Your task to perform on an android device: Go to CNN.com Image 0: 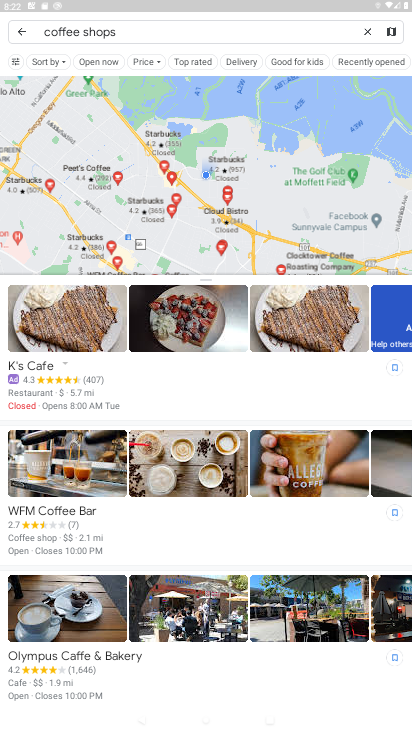
Step 0: press home button
Your task to perform on an android device: Go to CNN.com Image 1: 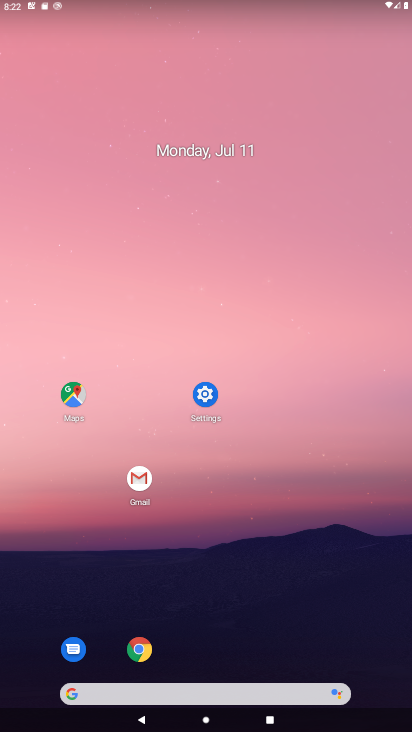
Step 1: click (129, 645)
Your task to perform on an android device: Go to CNN.com Image 2: 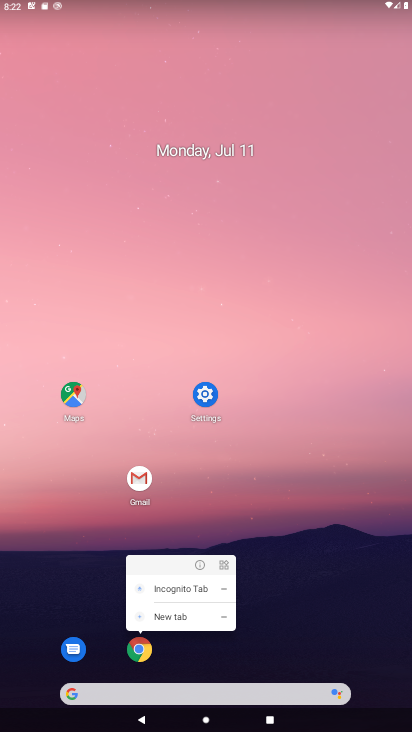
Step 2: click (142, 650)
Your task to perform on an android device: Go to CNN.com Image 3: 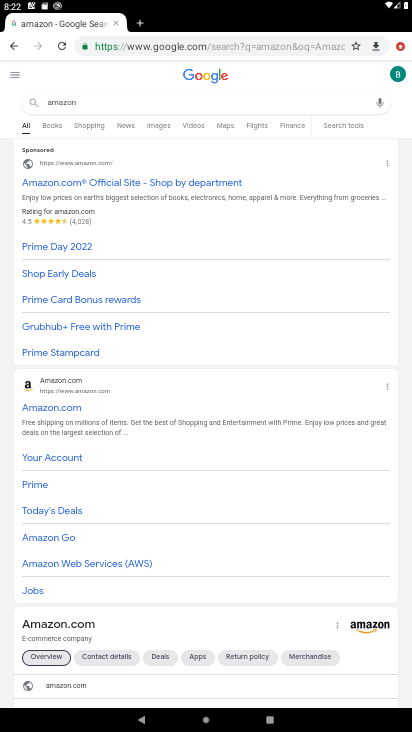
Step 3: click (346, 44)
Your task to perform on an android device: Go to CNN.com Image 4: 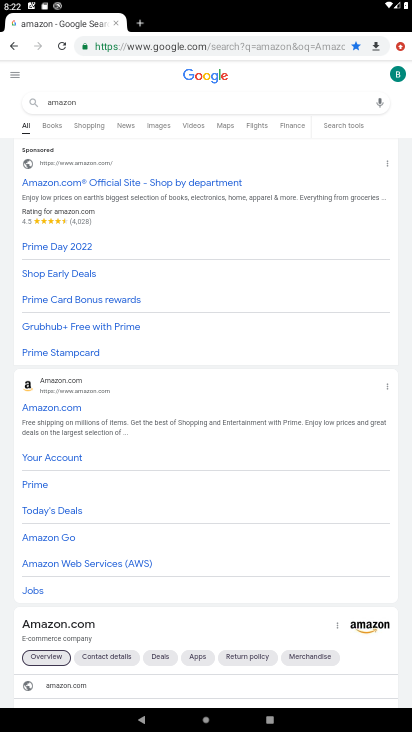
Step 4: click (341, 43)
Your task to perform on an android device: Go to CNN.com Image 5: 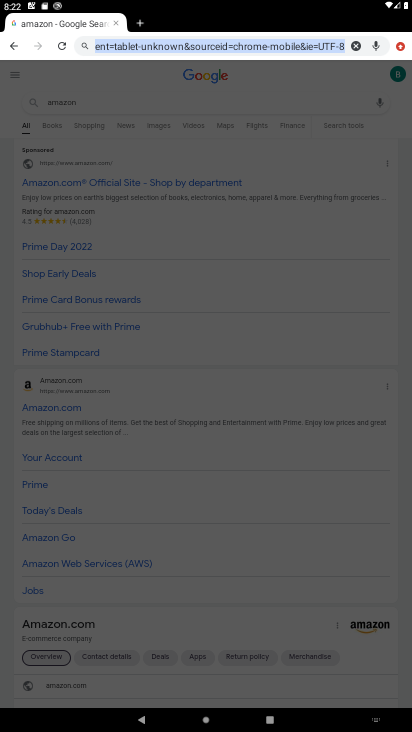
Step 5: click (355, 45)
Your task to perform on an android device: Go to CNN.com Image 6: 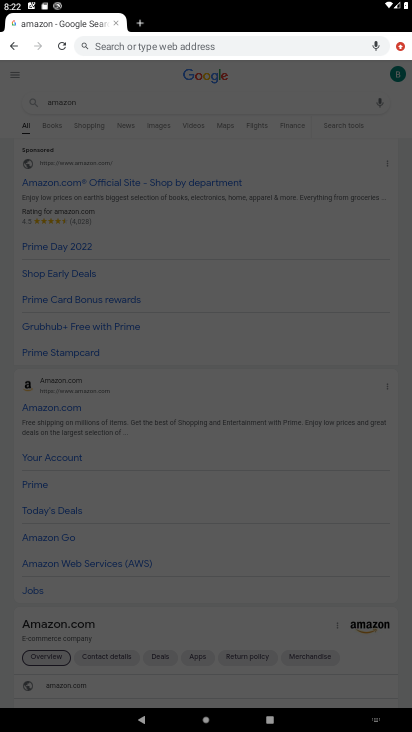
Step 6: type "CNN.com"
Your task to perform on an android device: Go to CNN.com Image 7: 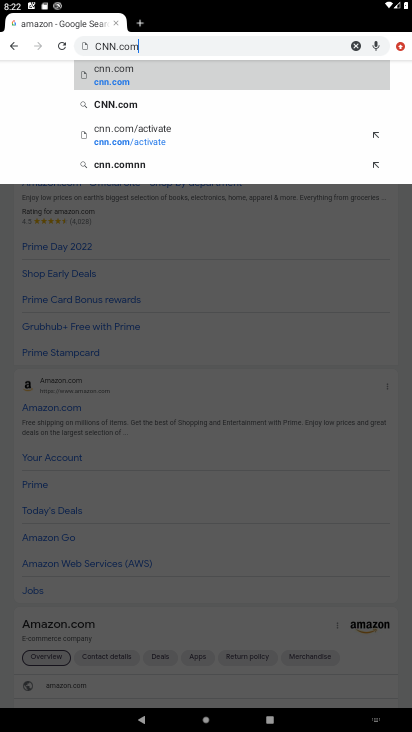
Step 7: click (137, 106)
Your task to perform on an android device: Go to CNN.com Image 8: 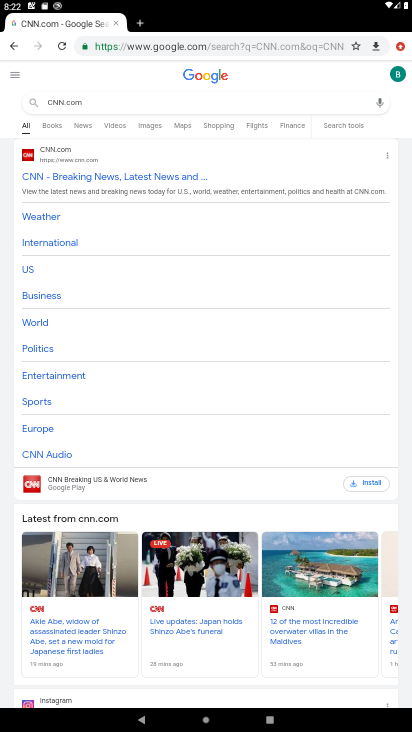
Step 8: task complete